Your task to perform on an android device: open a bookmark in the chrome app Image 0: 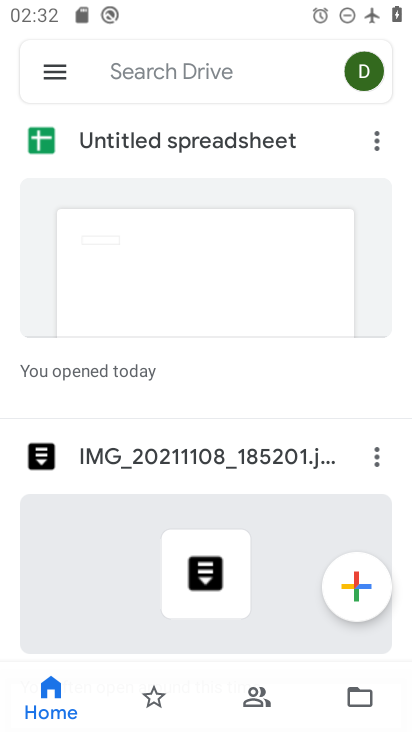
Step 0: press home button
Your task to perform on an android device: open a bookmark in the chrome app Image 1: 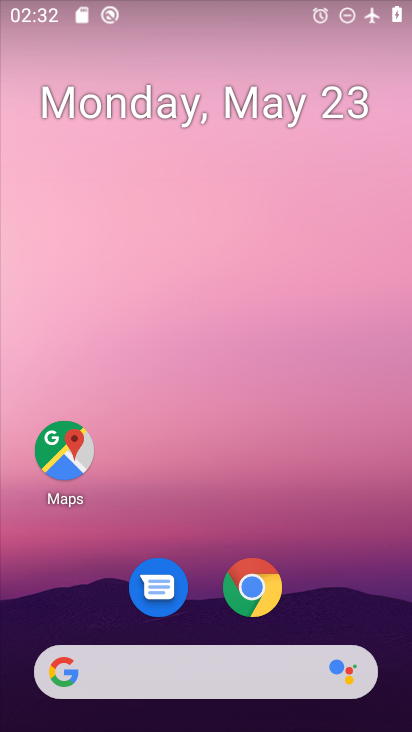
Step 1: drag from (356, 571) to (296, 22)
Your task to perform on an android device: open a bookmark in the chrome app Image 2: 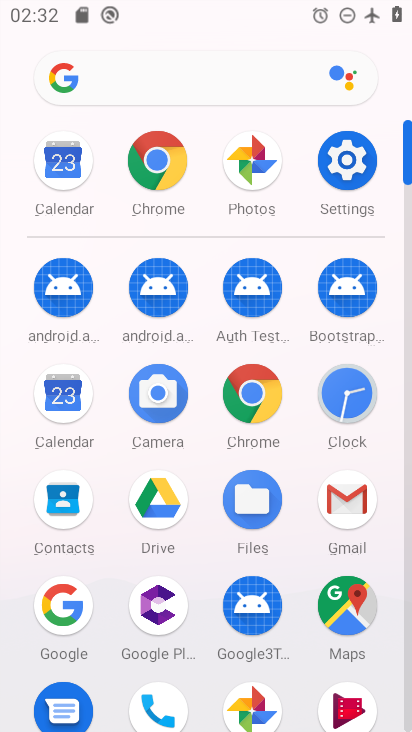
Step 2: click (161, 161)
Your task to perform on an android device: open a bookmark in the chrome app Image 3: 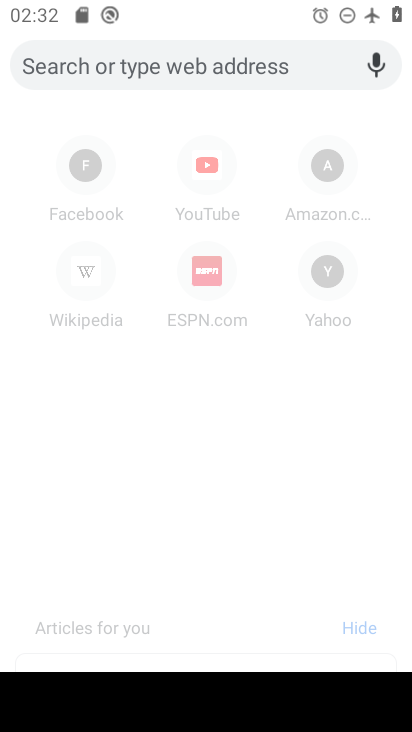
Step 3: task complete